Your task to perform on an android device: Play the last video I watched on Youtube Image 0: 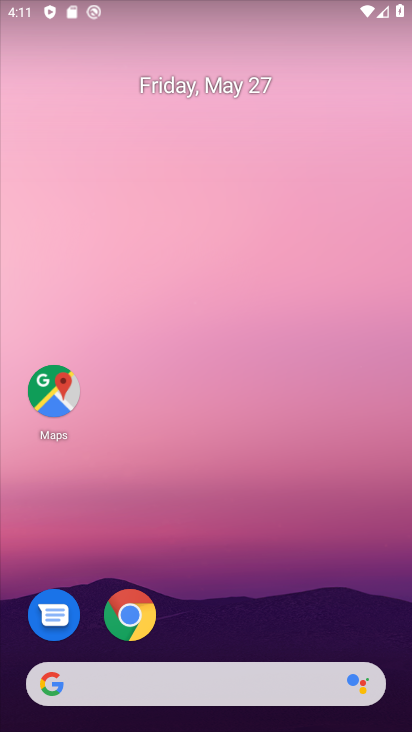
Step 0: drag from (275, 383) to (181, 27)
Your task to perform on an android device: Play the last video I watched on Youtube Image 1: 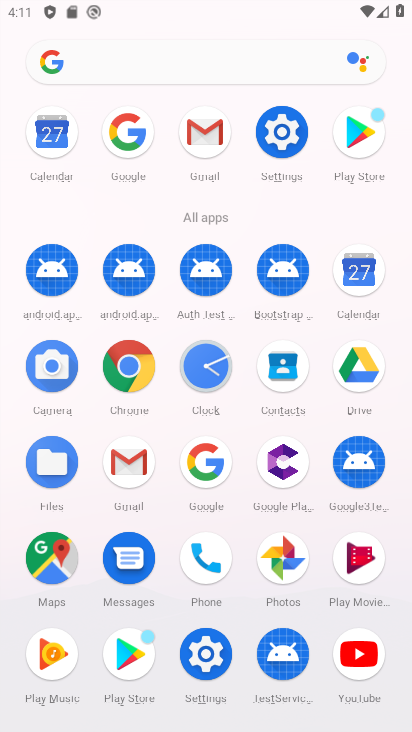
Step 1: click (359, 643)
Your task to perform on an android device: Play the last video I watched on Youtube Image 2: 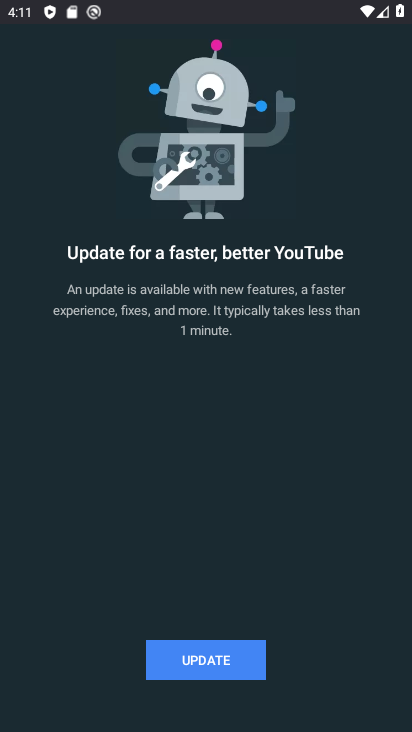
Step 2: click (235, 657)
Your task to perform on an android device: Play the last video I watched on Youtube Image 3: 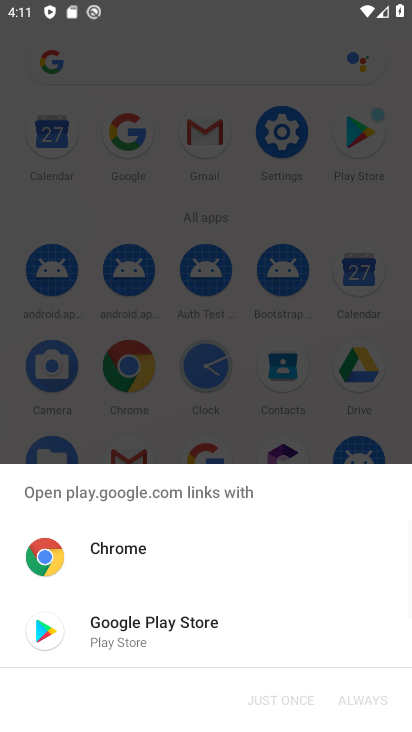
Step 3: click (173, 610)
Your task to perform on an android device: Play the last video I watched on Youtube Image 4: 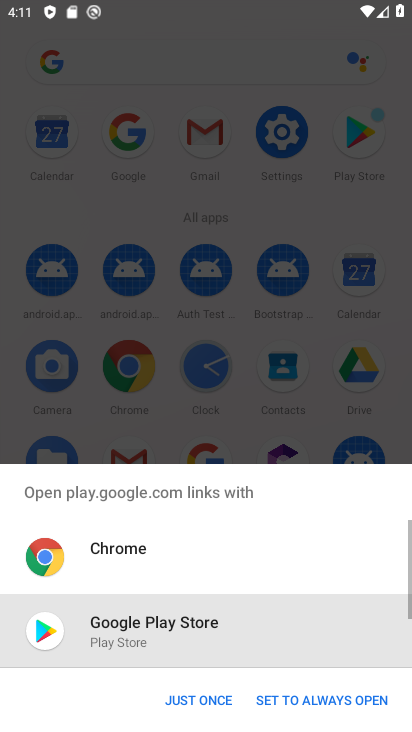
Step 4: click (198, 697)
Your task to perform on an android device: Play the last video I watched on Youtube Image 5: 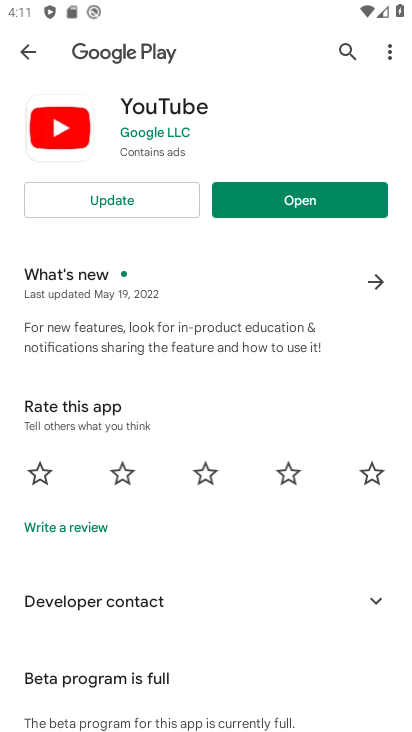
Step 5: click (143, 196)
Your task to perform on an android device: Play the last video I watched on Youtube Image 6: 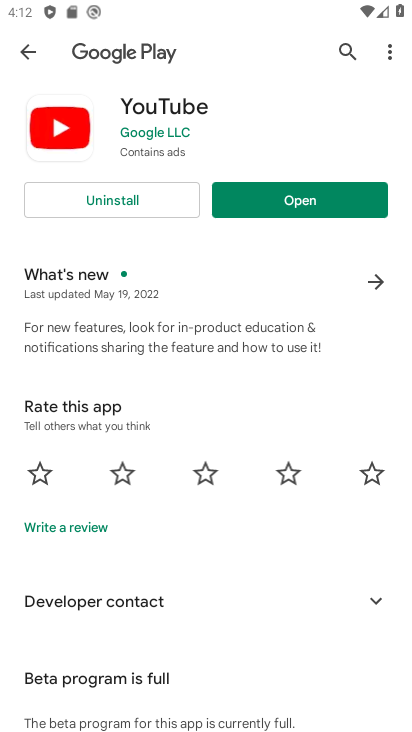
Step 6: click (302, 193)
Your task to perform on an android device: Play the last video I watched on Youtube Image 7: 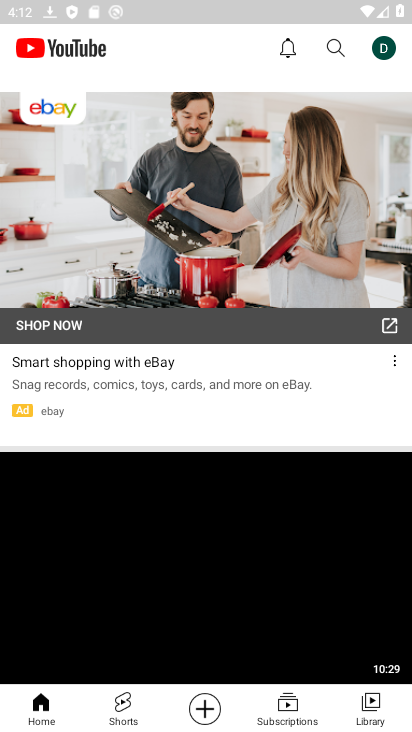
Step 7: click (368, 711)
Your task to perform on an android device: Play the last video I watched on Youtube Image 8: 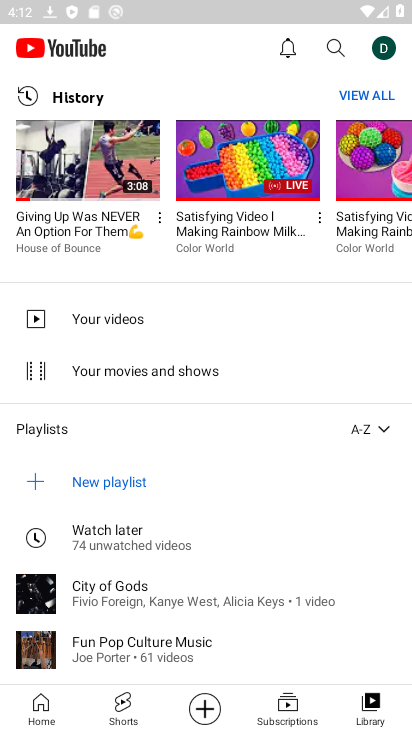
Step 8: click (69, 164)
Your task to perform on an android device: Play the last video I watched on Youtube Image 9: 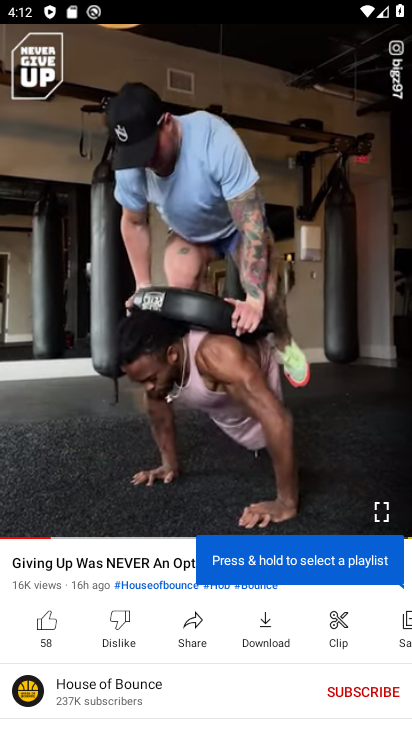
Step 9: click (186, 226)
Your task to perform on an android device: Play the last video I watched on Youtube Image 10: 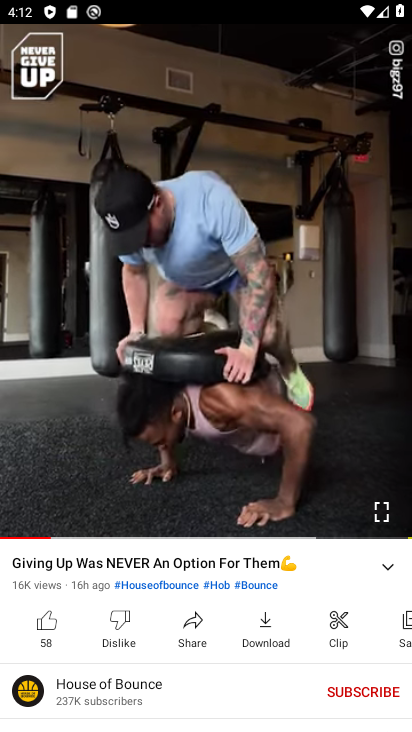
Step 10: click (186, 226)
Your task to perform on an android device: Play the last video I watched on Youtube Image 11: 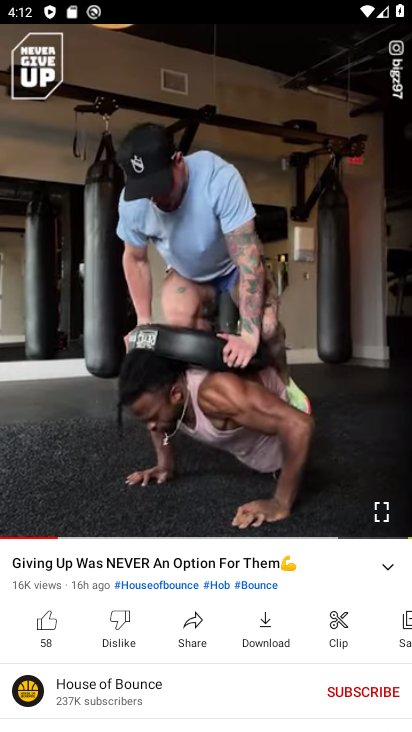
Step 11: click (204, 289)
Your task to perform on an android device: Play the last video I watched on Youtube Image 12: 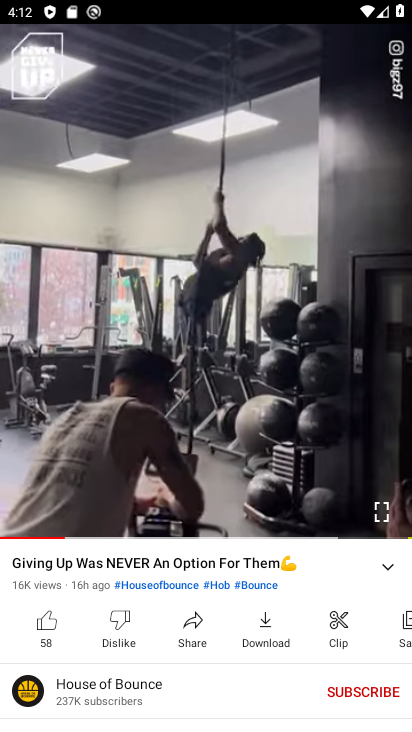
Step 12: click (201, 284)
Your task to perform on an android device: Play the last video I watched on Youtube Image 13: 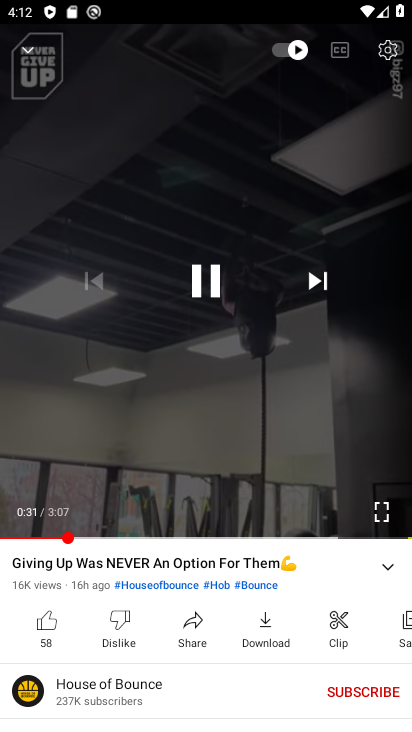
Step 13: click (209, 282)
Your task to perform on an android device: Play the last video I watched on Youtube Image 14: 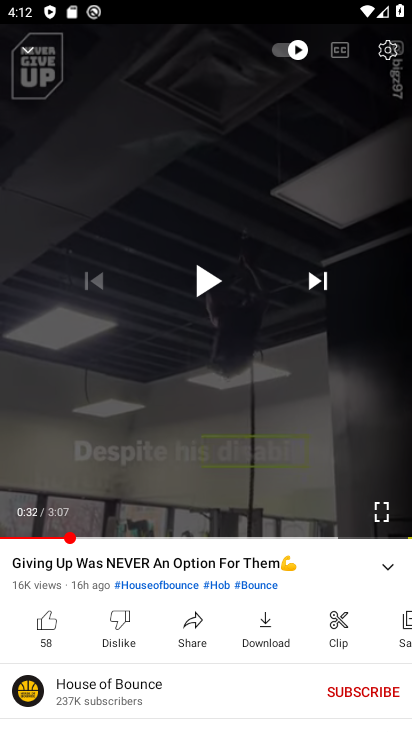
Step 14: task complete